Your task to perform on an android device: Open Yahoo.com Image 0: 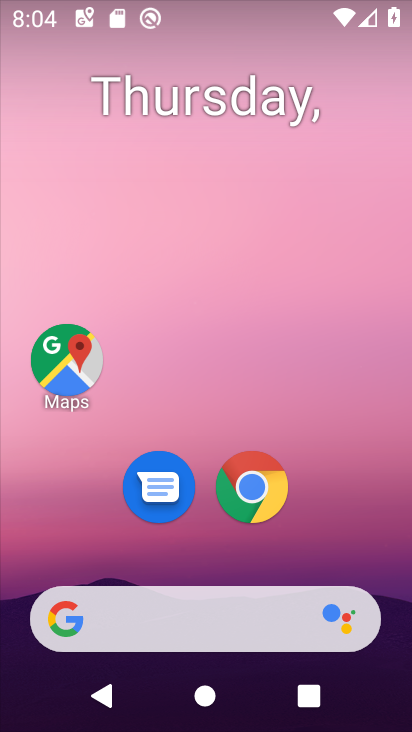
Step 0: click (248, 488)
Your task to perform on an android device: Open Yahoo.com Image 1: 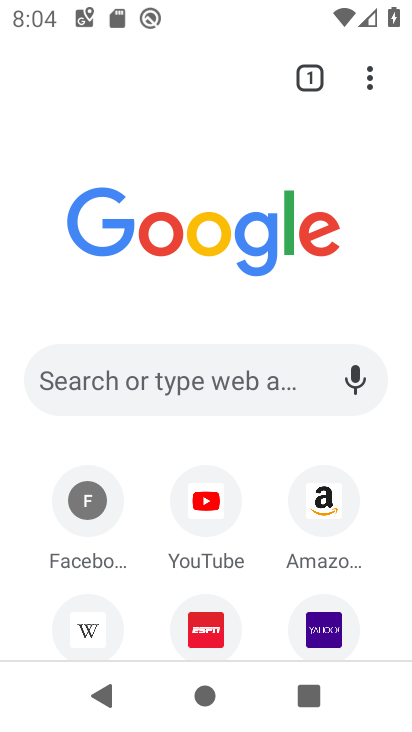
Step 1: click (327, 621)
Your task to perform on an android device: Open Yahoo.com Image 2: 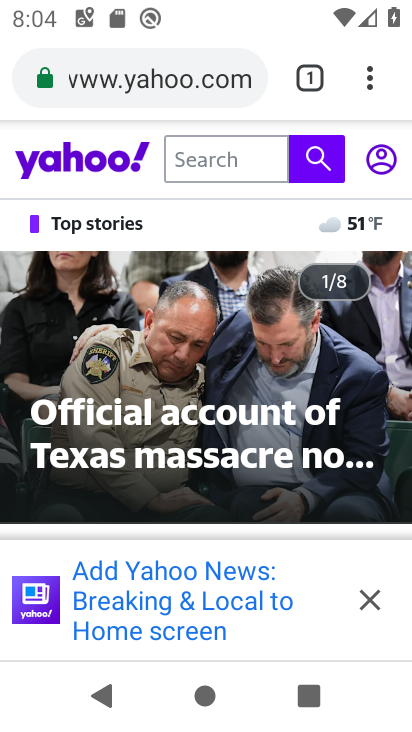
Step 2: task complete